Your task to perform on an android device: turn off improve location accuracy Image 0: 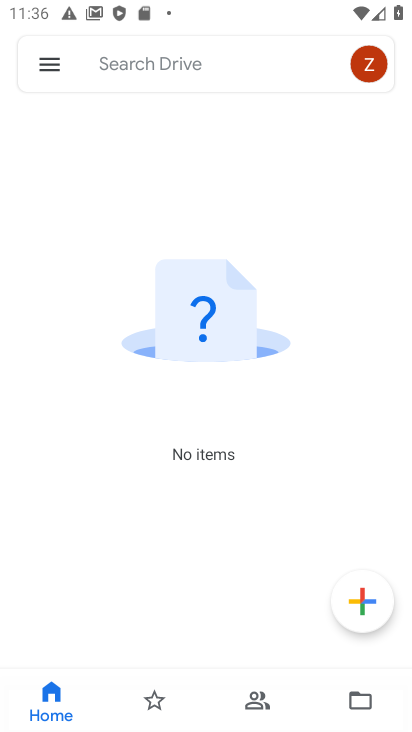
Step 0: press home button
Your task to perform on an android device: turn off improve location accuracy Image 1: 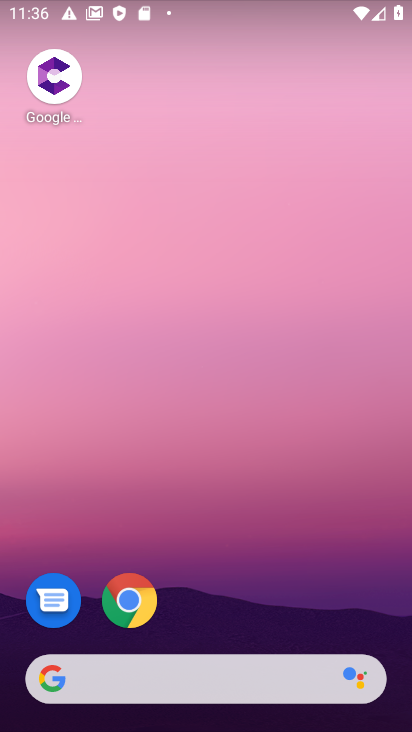
Step 1: drag from (135, 686) to (281, 46)
Your task to perform on an android device: turn off improve location accuracy Image 2: 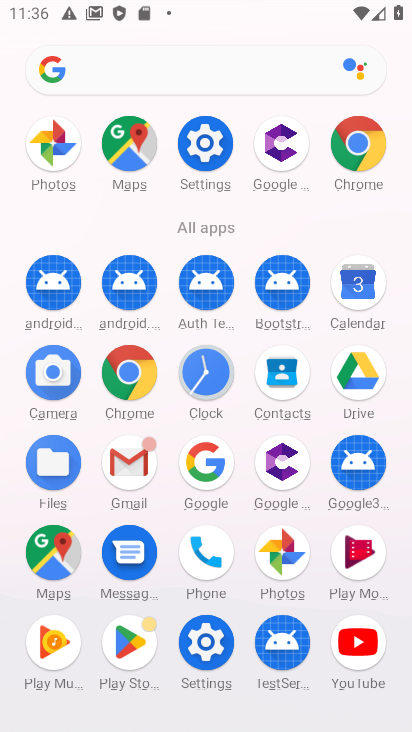
Step 2: click (210, 152)
Your task to perform on an android device: turn off improve location accuracy Image 3: 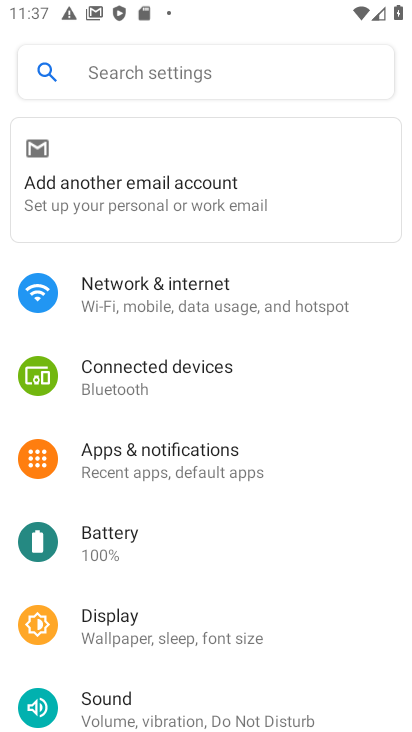
Step 3: drag from (243, 532) to (330, 168)
Your task to perform on an android device: turn off improve location accuracy Image 4: 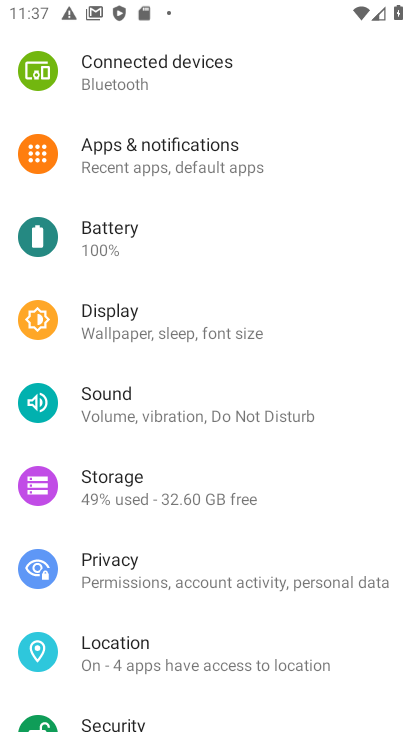
Step 4: click (150, 651)
Your task to perform on an android device: turn off improve location accuracy Image 5: 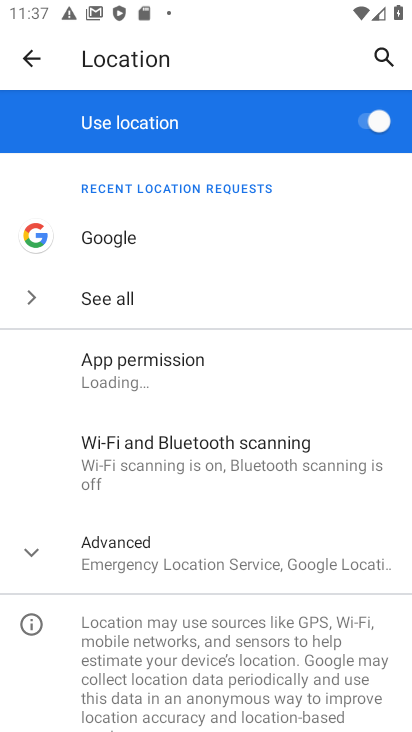
Step 5: click (141, 549)
Your task to perform on an android device: turn off improve location accuracy Image 6: 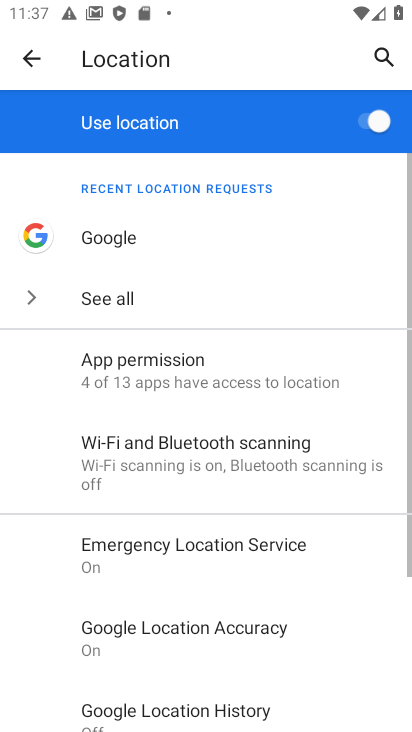
Step 6: drag from (243, 569) to (286, 262)
Your task to perform on an android device: turn off improve location accuracy Image 7: 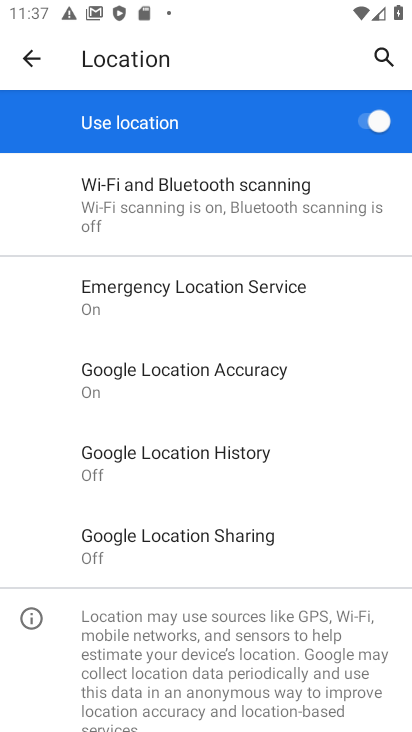
Step 7: click (205, 367)
Your task to perform on an android device: turn off improve location accuracy Image 8: 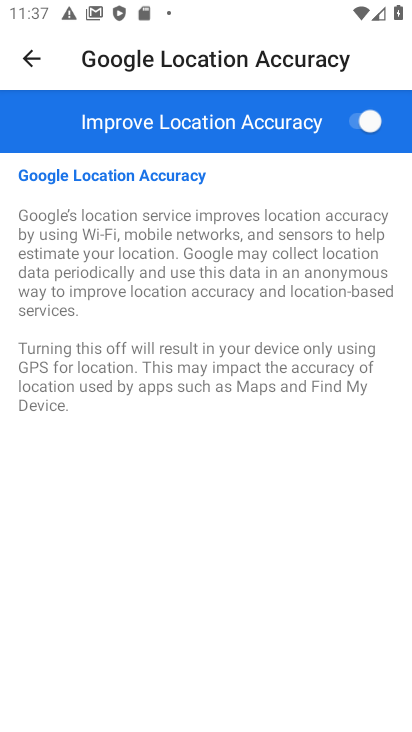
Step 8: click (355, 118)
Your task to perform on an android device: turn off improve location accuracy Image 9: 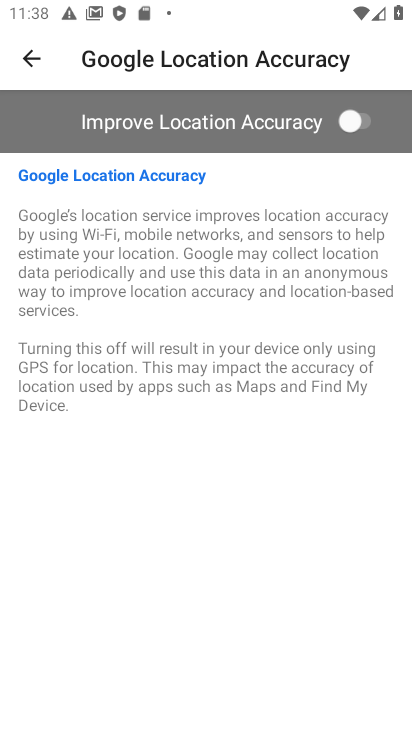
Step 9: task complete